Your task to perform on an android device: Open the map Image 0: 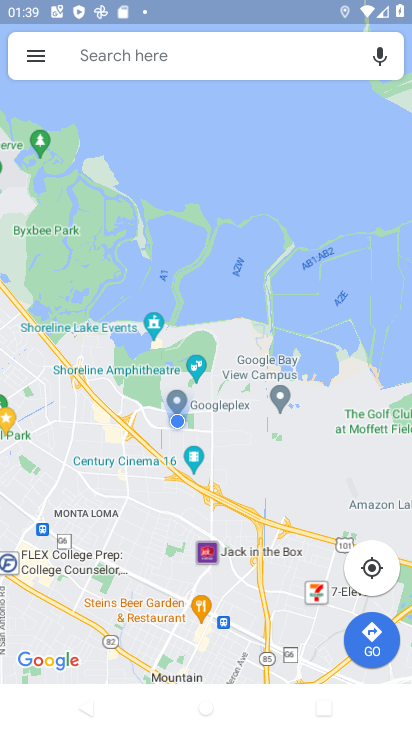
Step 0: task complete